Your task to perform on an android device: open a new tab in the chrome app Image 0: 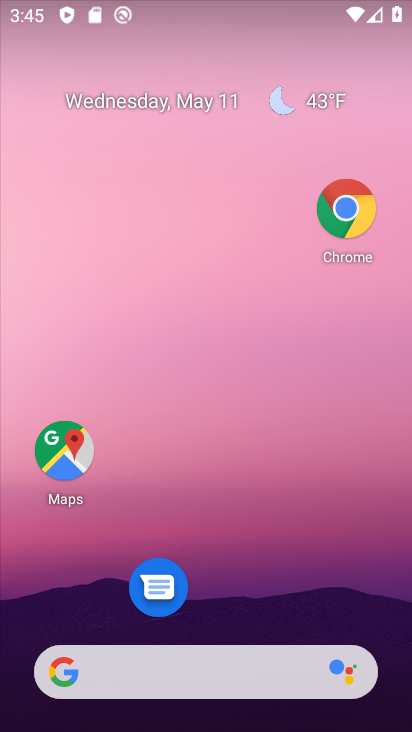
Step 0: click (349, 208)
Your task to perform on an android device: open a new tab in the chrome app Image 1: 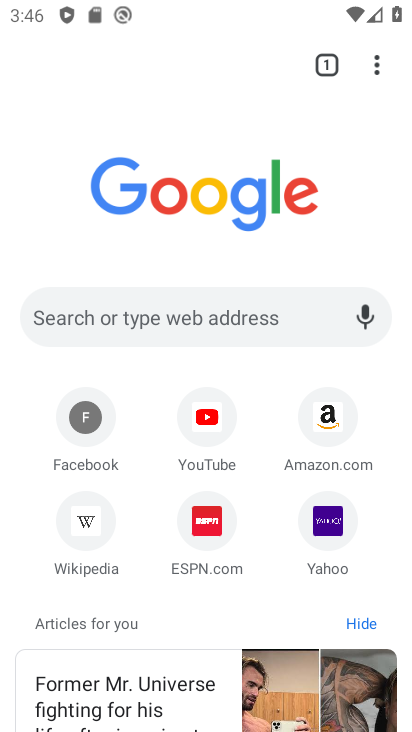
Step 1: click (369, 55)
Your task to perform on an android device: open a new tab in the chrome app Image 2: 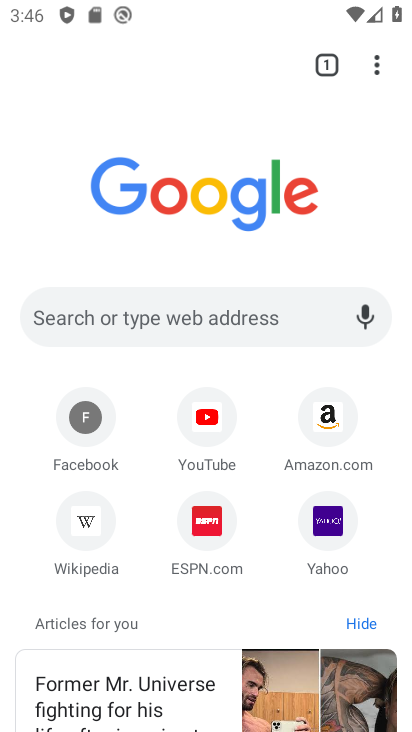
Step 2: click (378, 61)
Your task to perform on an android device: open a new tab in the chrome app Image 3: 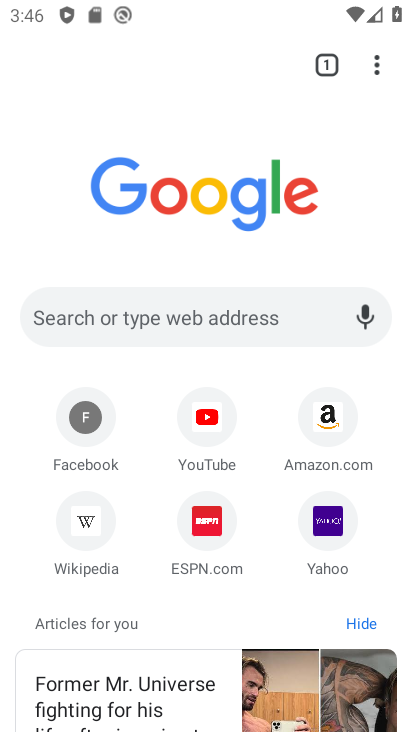
Step 3: click (378, 61)
Your task to perform on an android device: open a new tab in the chrome app Image 4: 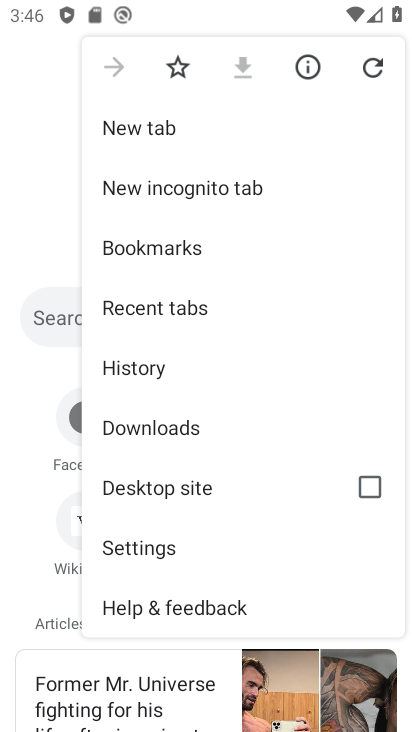
Step 4: click (167, 126)
Your task to perform on an android device: open a new tab in the chrome app Image 5: 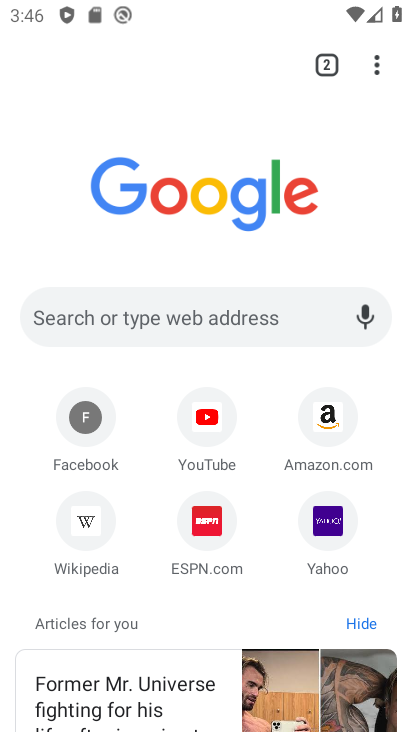
Step 5: click (172, 332)
Your task to perform on an android device: open a new tab in the chrome app Image 6: 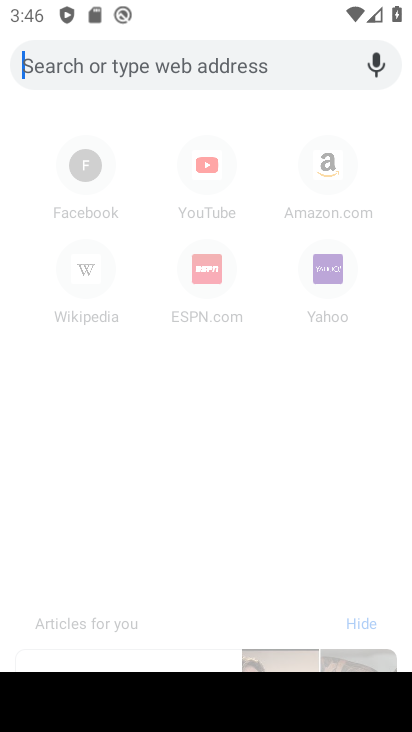
Step 6: click (126, 59)
Your task to perform on an android device: open a new tab in the chrome app Image 7: 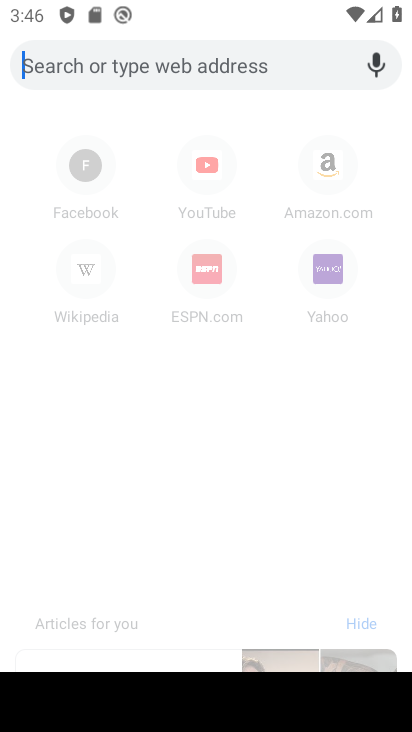
Step 7: click (144, 78)
Your task to perform on an android device: open a new tab in the chrome app Image 8: 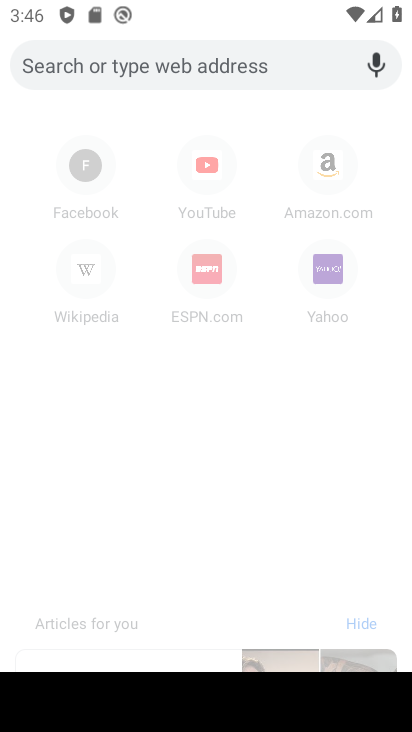
Step 8: press back button
Your task to perform on an android device: open a new tab in the chrome app Image 9: 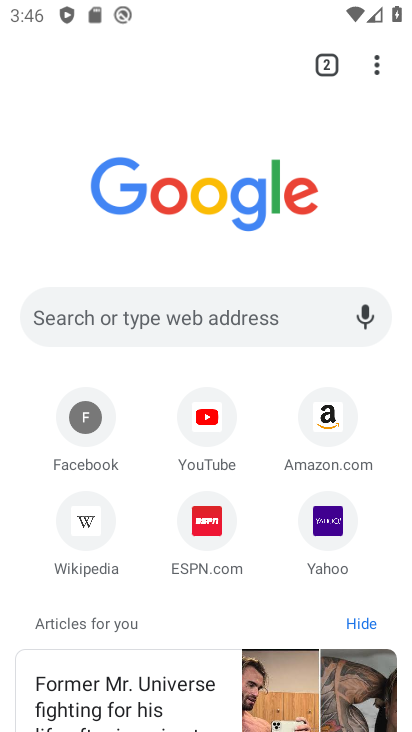
Step 9: press back button
Your task to perform on an android device: open a new tab in the chrome app Image 10: 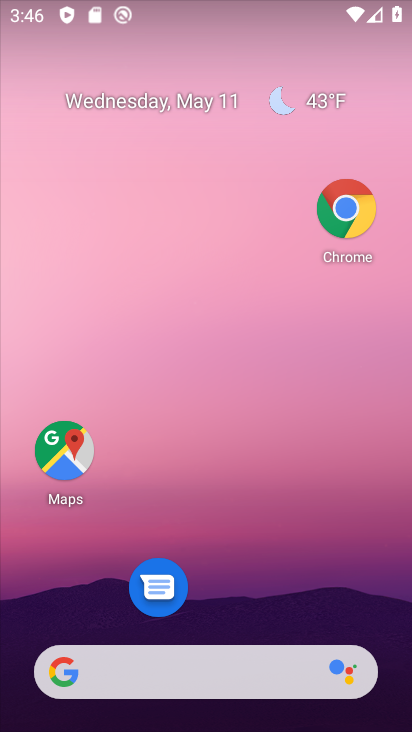
Step 10: click (341, 210)
Your task to perform on an android device: open a new tab in the chrome app Image 11: 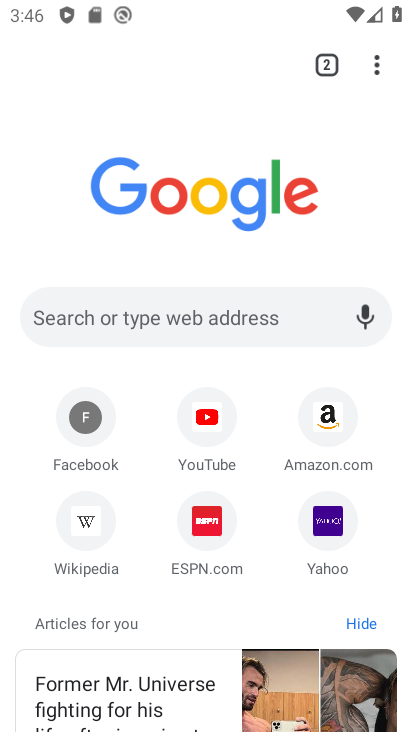
Step 11: click (324, 60)
Your task to perform on an android device: open a new tab in the chrome app Image 12: 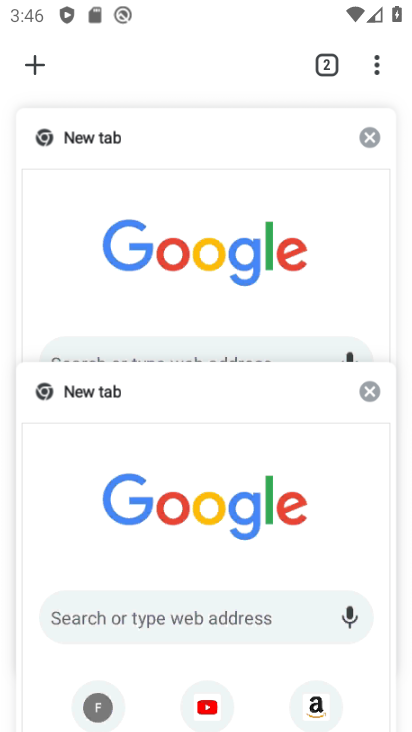
Step 12: click (372, 388)
Your task to perform on an android device: open a new tab in the chrome app Image 13: 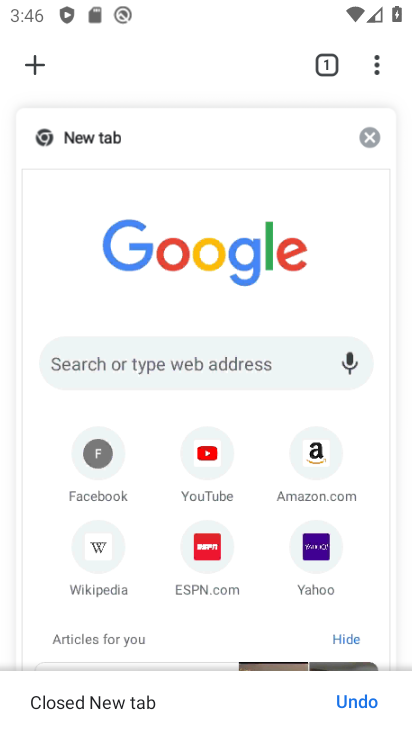
Step 13: click (364, 131)
Your task to perform on an android device: open a new tab in the chrome app Image 14: 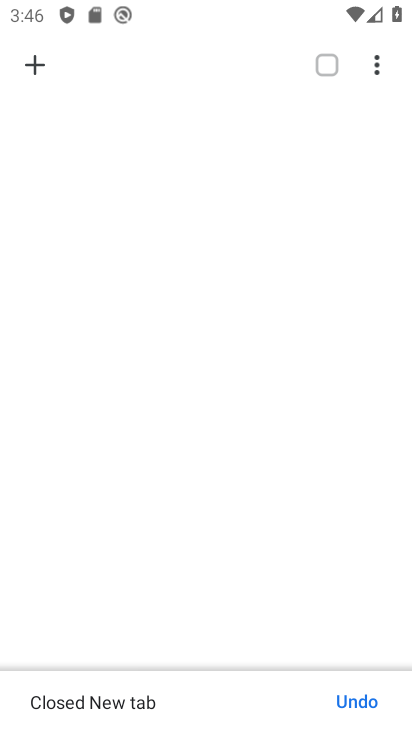
Step 14: click (26, 61)
Your task to perform on an android device: open a new tab in the chrome app Image 15: 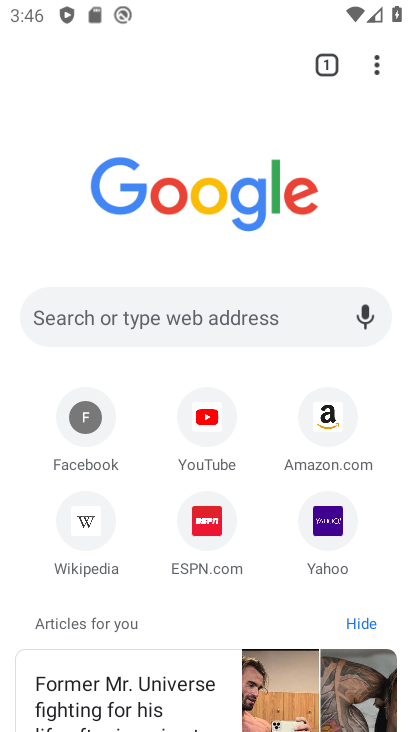
Step 15: task complete